Your task to perform on an android device: open app "LiveIn - Share Your Moment" (install if not already installed) Image 0: 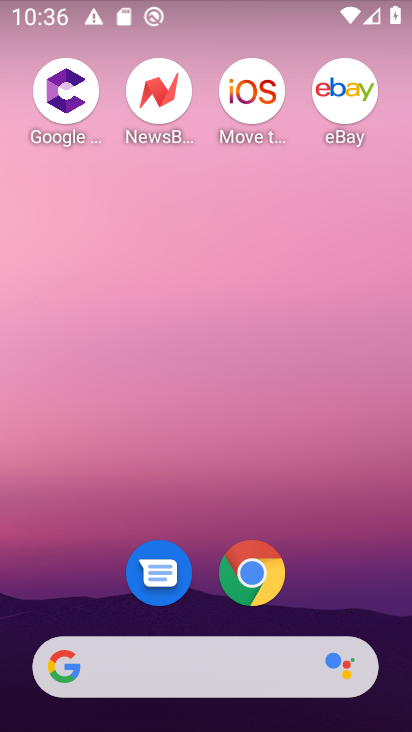
Step 0: drag from (365, 597) to (368, 150)
Your task to perform on an android device: open app "LiveIn - Share Your Moment" (install if not already installed) Image 1: 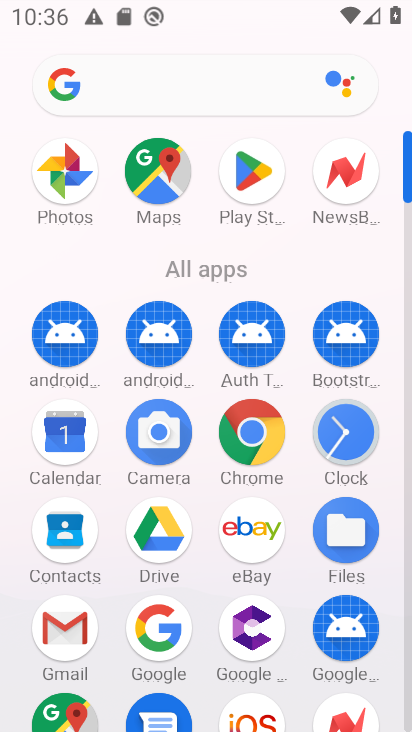
Step 1: click (248, 179)
Your task to perform on an android device: open app "LiveIn - Share Your Moment" (install if not already installed) Image 2: 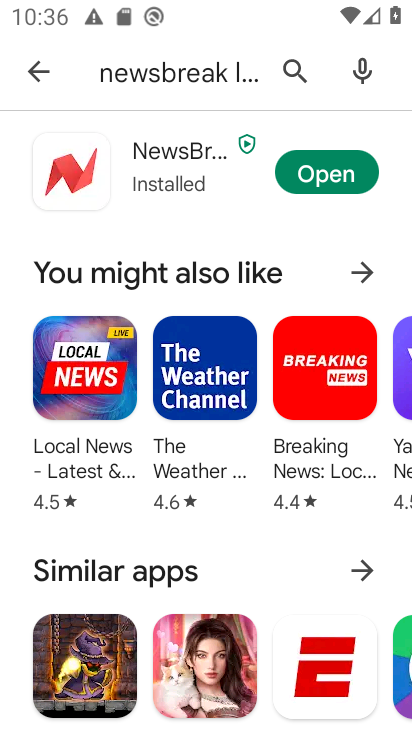
Step 2: click (291, 64)
Your task to perform on an android device: open app "LiveIn - Share Your Moment" (install if not already installed) Image 3: 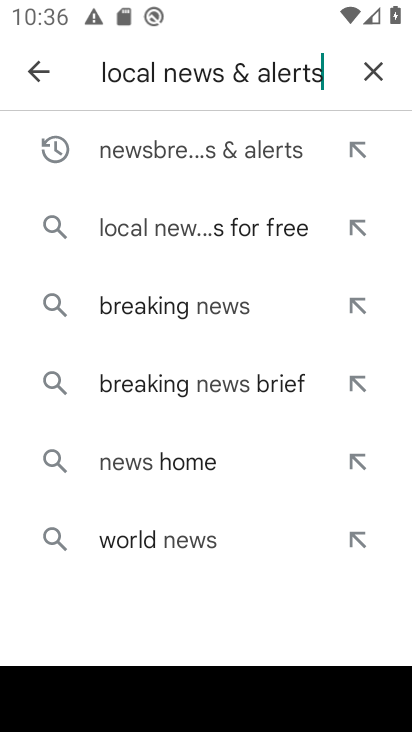
Step 3: click (372, 71)
Your task to perform on an android device: open app "LiveIn - Share Your Moment" (install if not already installed) Image 4: 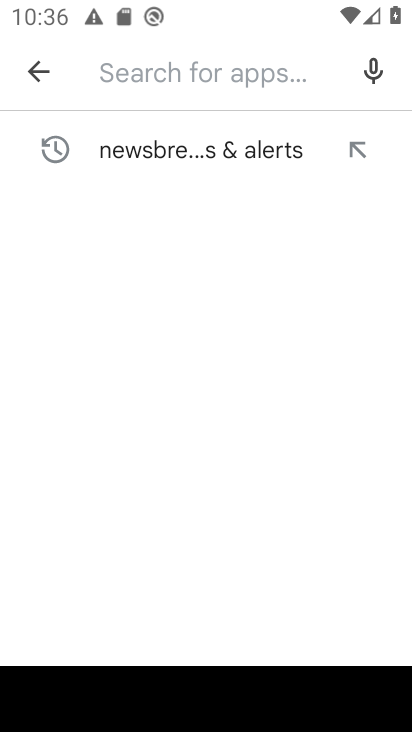
Step 4: click (273, 91)
Your task to perform on an android device: open app "LiveIn - Share Your Moment" (install if not already installed) Image 5: 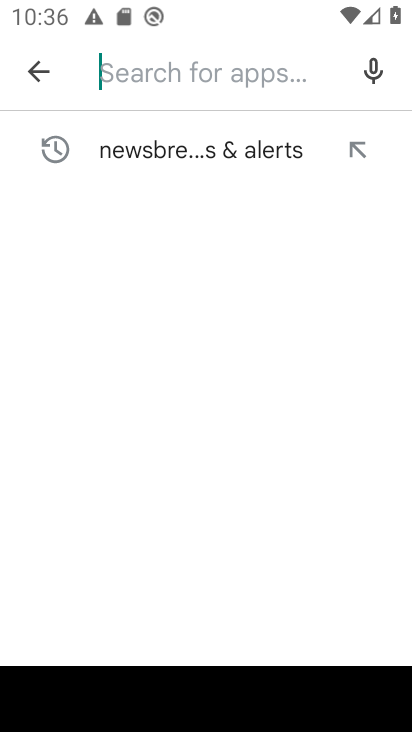
Step 5: type "LiveIn - Share Your Moment"
Your task to perform on an android device: open app "LiveIn - Share Your Moment" (install if not already installed) Image 6: 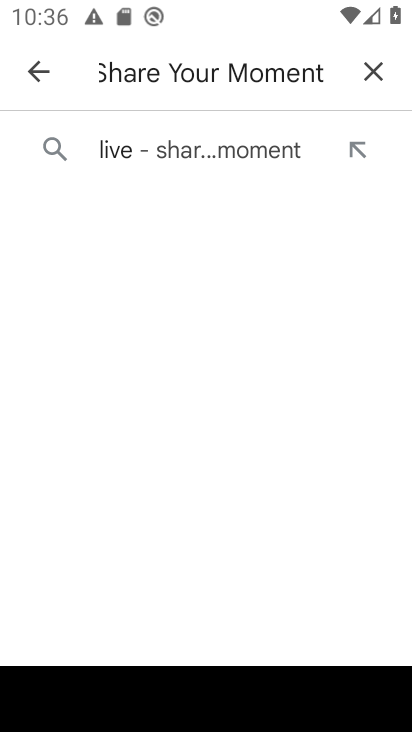
Step 6: click (259, 155)
Your task to perform on an android device: open app "LiveIn - Share Your Moment" (install if not already installed) Image 7: 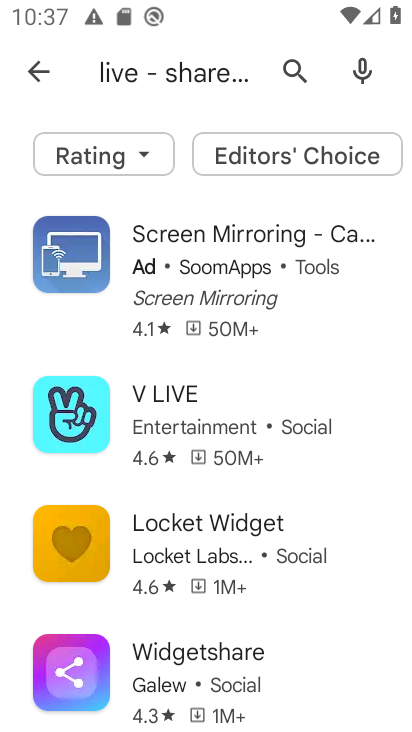
Step 7: task complete